Your task to perform on an android device: check the backup settings in the google photos Image 0: 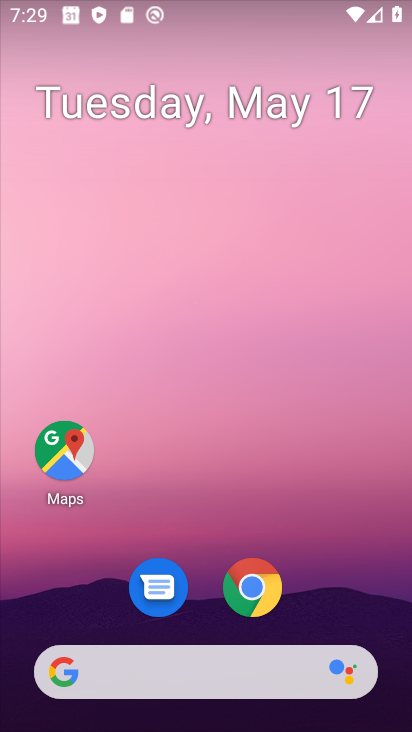
Step 0: drag from (252, 679) to (329, 171)
Your task to perform on an android device: check the backup settings in the google photos Image 1: 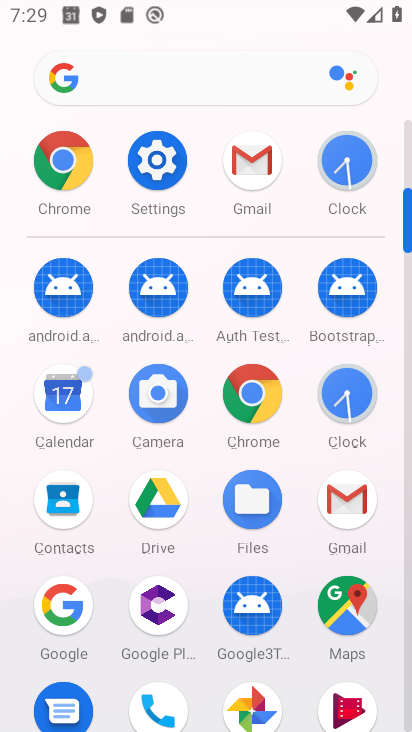
Step 1: click (258, 689)
Your task to perform on an android device: check the backup settings in the google photos Image 2: 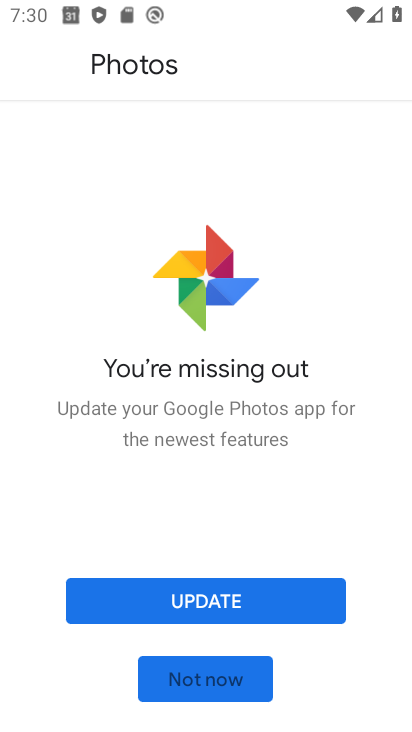
Step 2: click (214, 605)
Your task to perform on an android device: check the backup settings in the google photos Image 3: 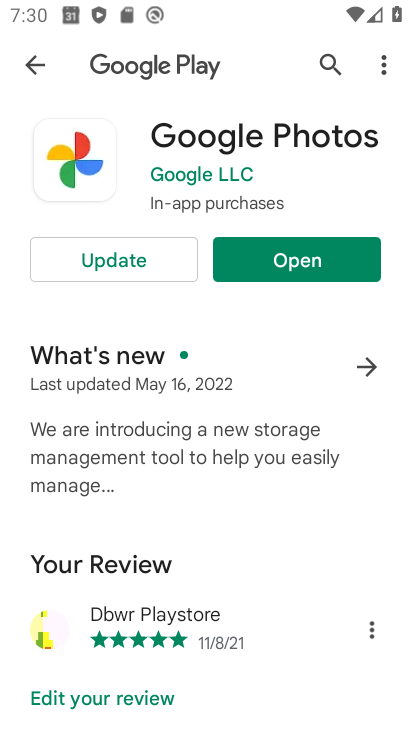
Step 3: click (287, 269)
Your task to perform on an android device: check the backup settings in the google photos Image 4: 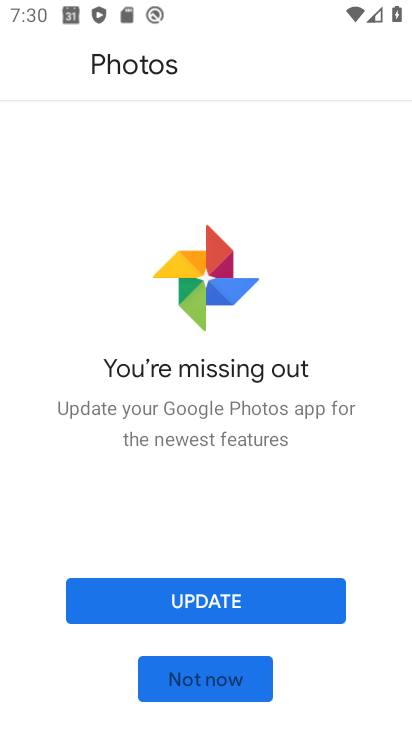
Step 4: click (249, 597)
Your task to perform on an android device: check the backup settings in the google photos Image 5: 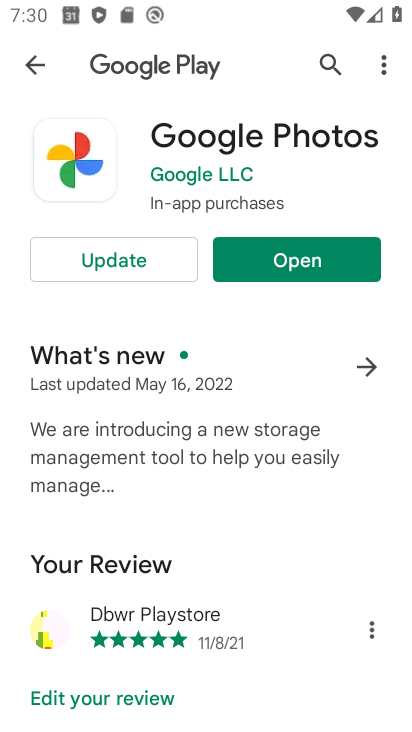
Step 5: click (115, 264)
Your task to perform on an android device: check the backup settings in the google photos Image 6: 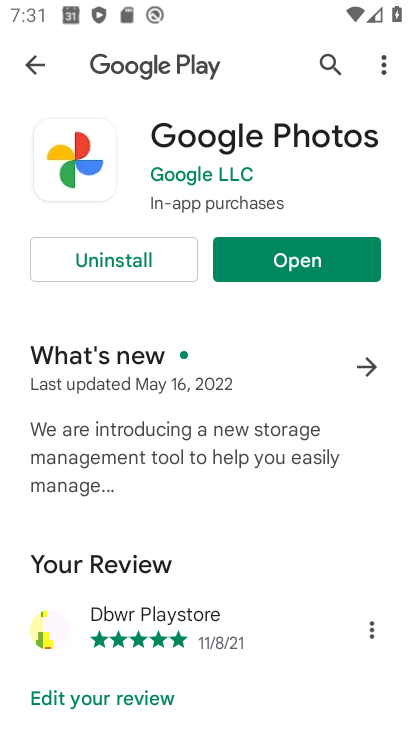
Step 6: click (281, 256)
Your task to perform on an android device: check the backup settings in the google photos Image 7: 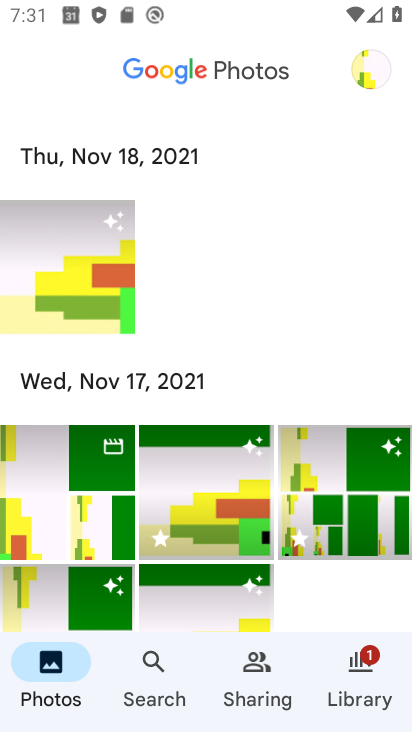
Step 7: click (381, 69)
Your task to perform on an android device: check the backup settings in the google photos Image 8: 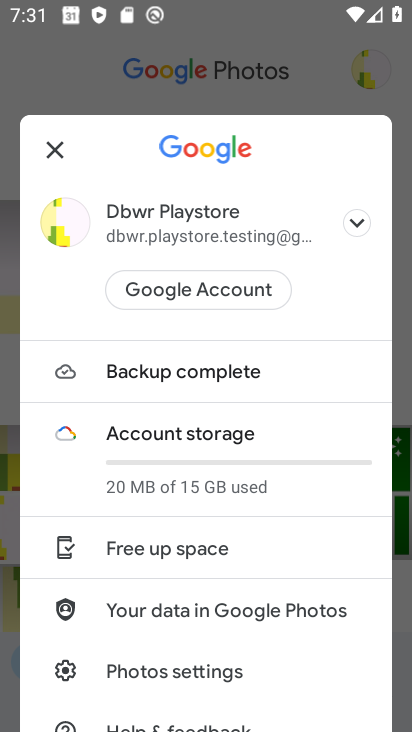
Step 8: click (164, 660)
Your task to perform on an android device: check the backup settings in the google photos Image 9: 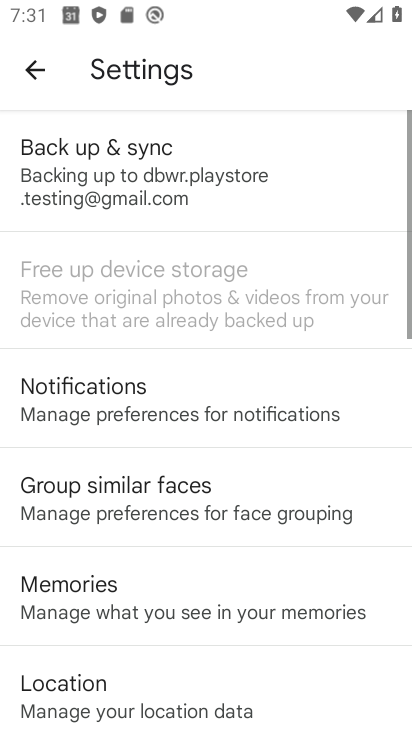
Step 9: click (106, 195)
Your task to perform on an android device: check the backup settings in the google photos Image 10: 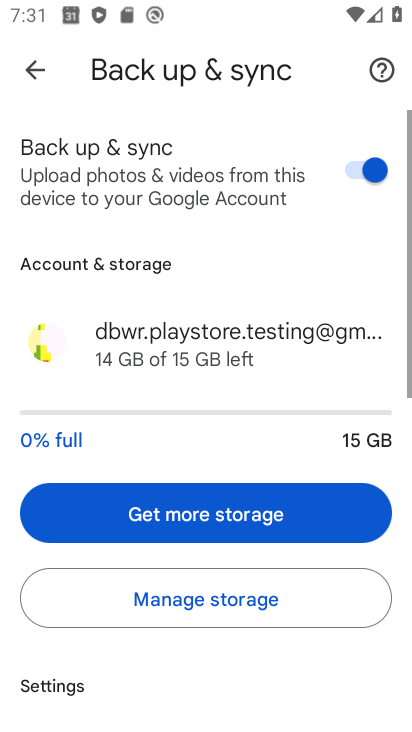
Step 10: task complete